Your task to perform on an android device: star an email in the gmail app Image 0: 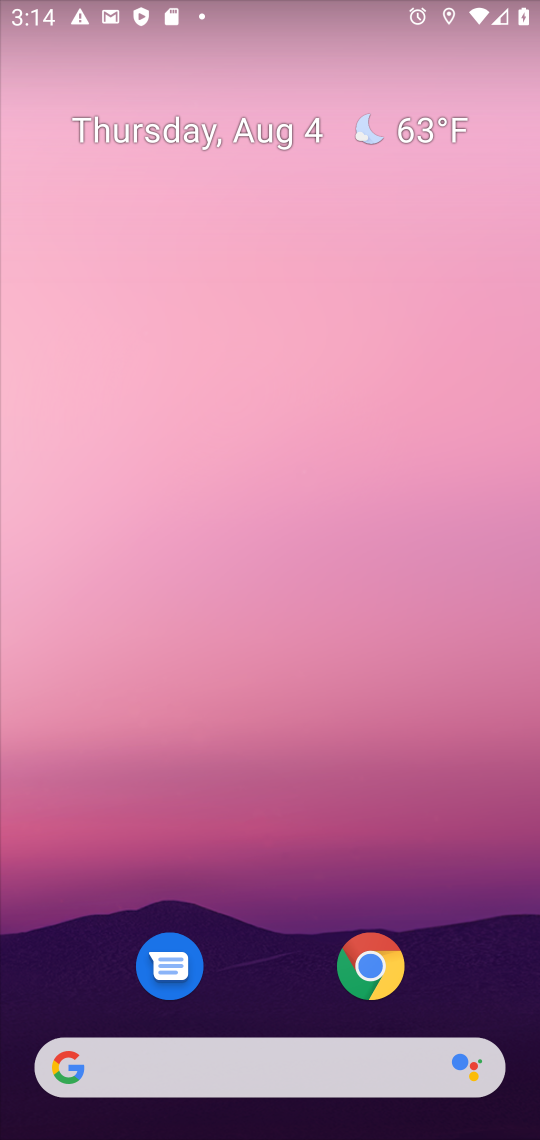
Step 0: drag from (298, 989) to (181, 0)
Your task to perform on an android device: star an email in the gmail app Image 1: 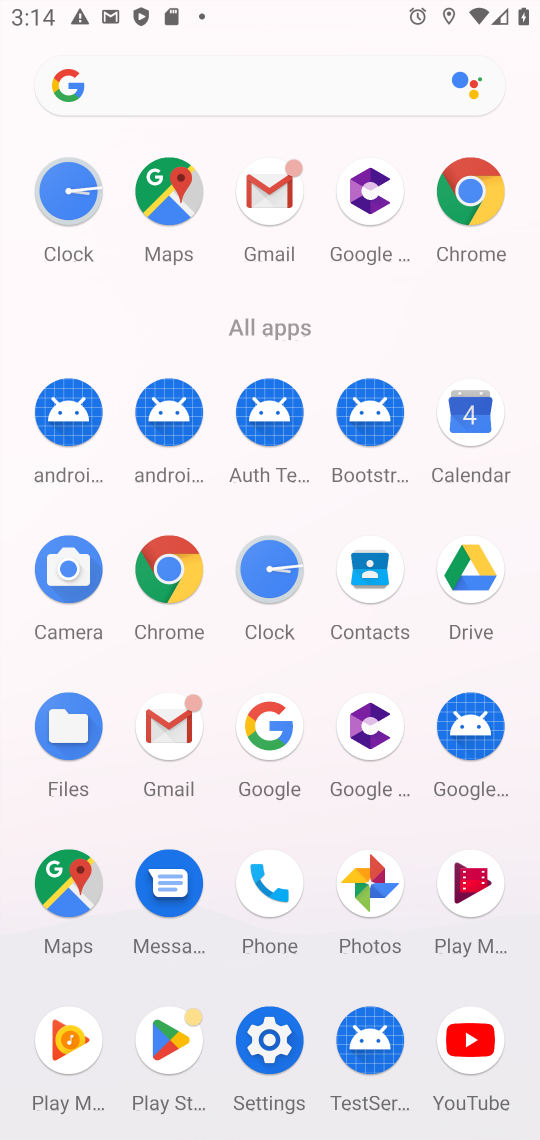
Step 1: click (285, 213)
Your task to perform on an android device: star an email in the gmail app Image 2: 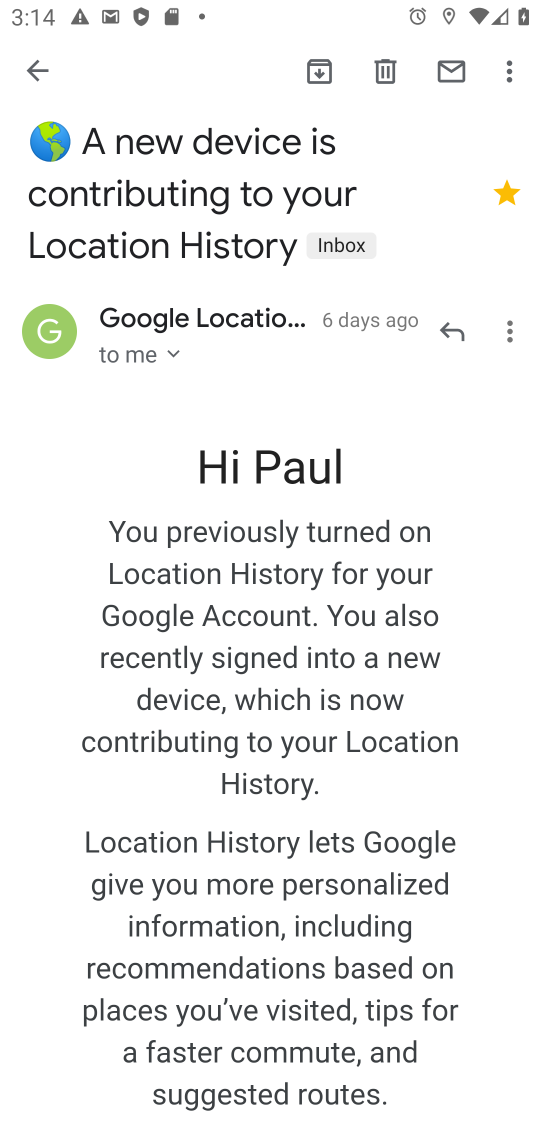
Step 2: click (39, 66)
Your task to perform on an android device: star an email in the gmail app Image 3: 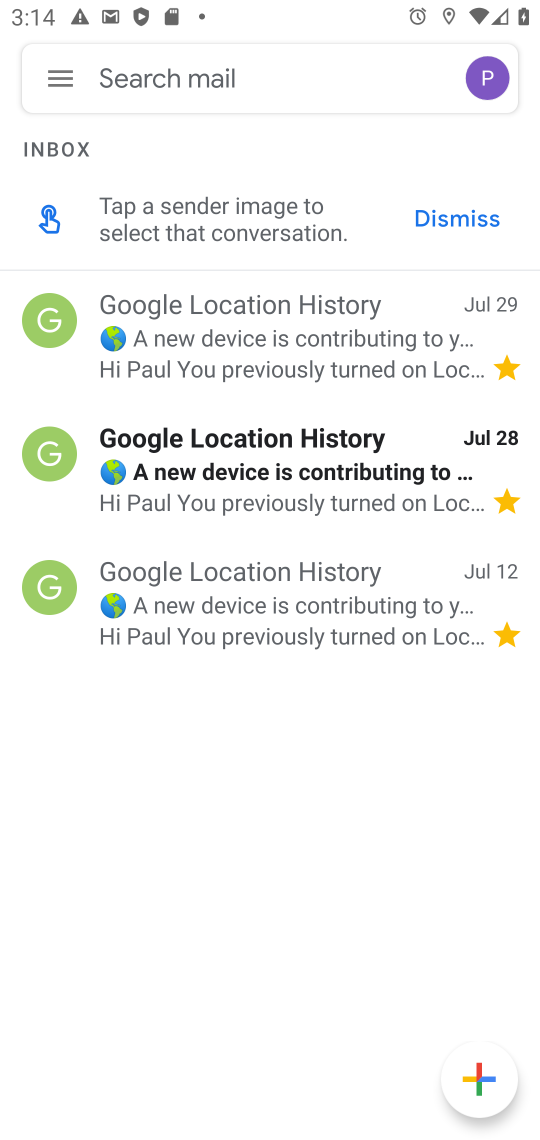
Step 3: click (51, 79)
Your task to perform on an android device: star an email in the gmail app Image 4: 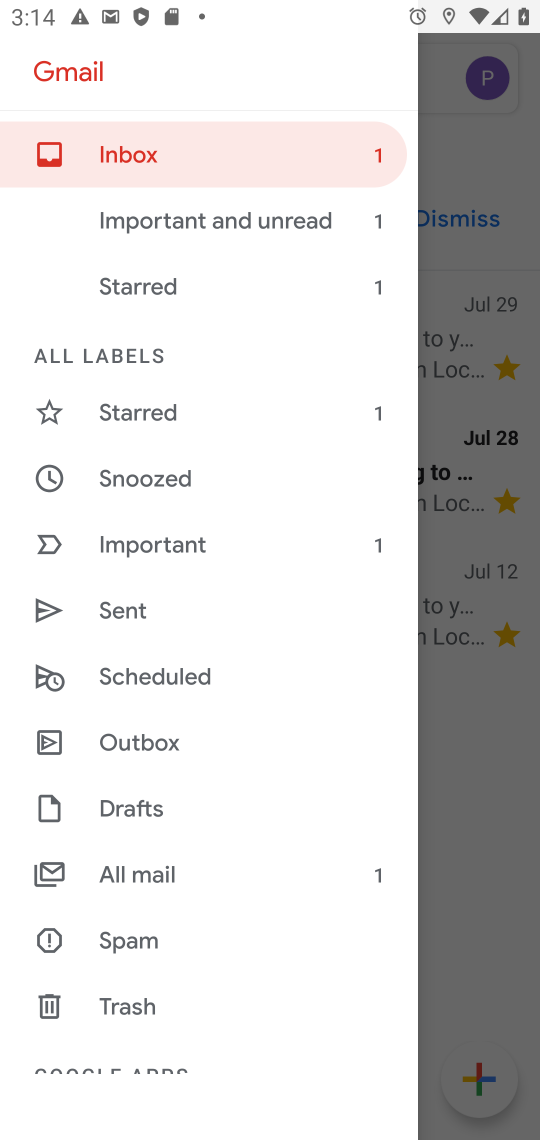
Step 4: click (167, 167)
Your task to perform on an android device: star an email in the gmail app Image 5: 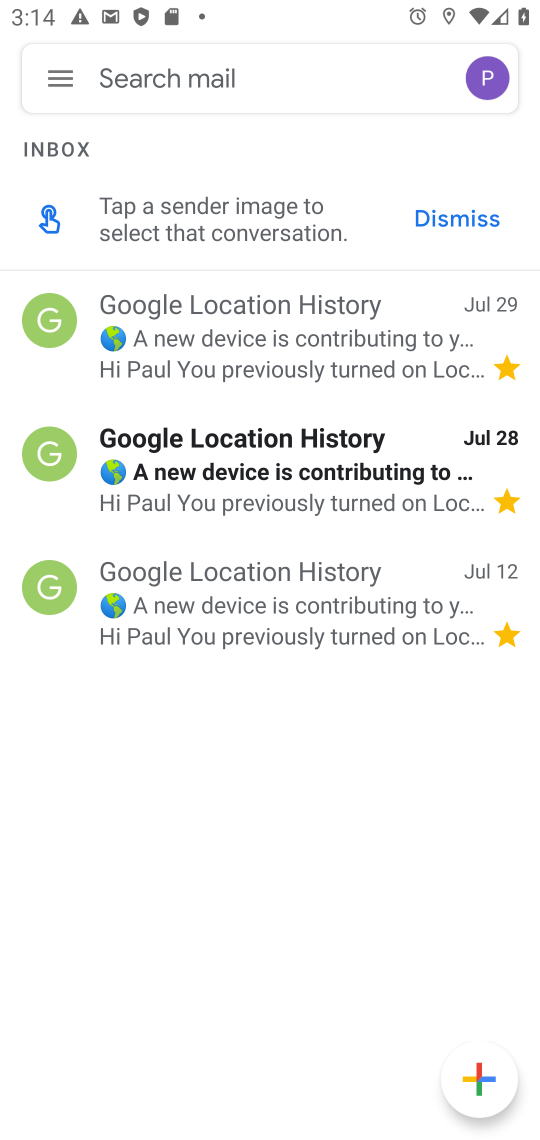
Step 5: task complete